Your task to perform on an android device: Go to settings Image 0: 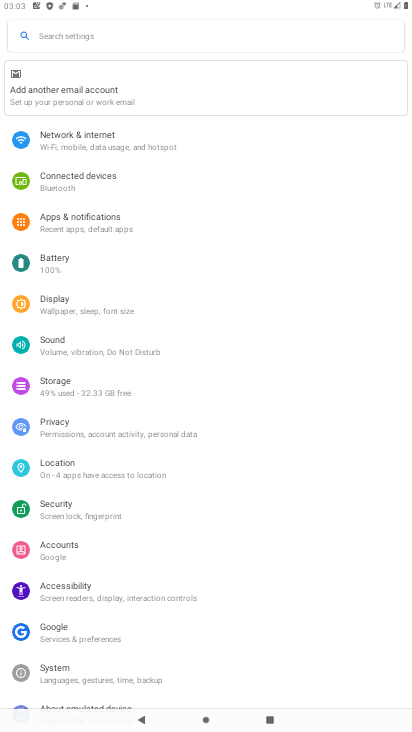
Step 0: drag from (271, 619) to (247, 251)
Your task to perform on an android device: Go to settings Image 1: 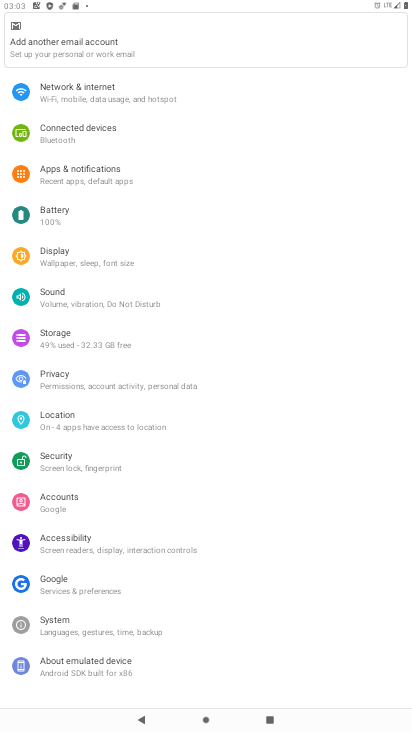
Step 1: task complete